Your task to perform on an android device: turn on javascript in the chrome app Image 0: 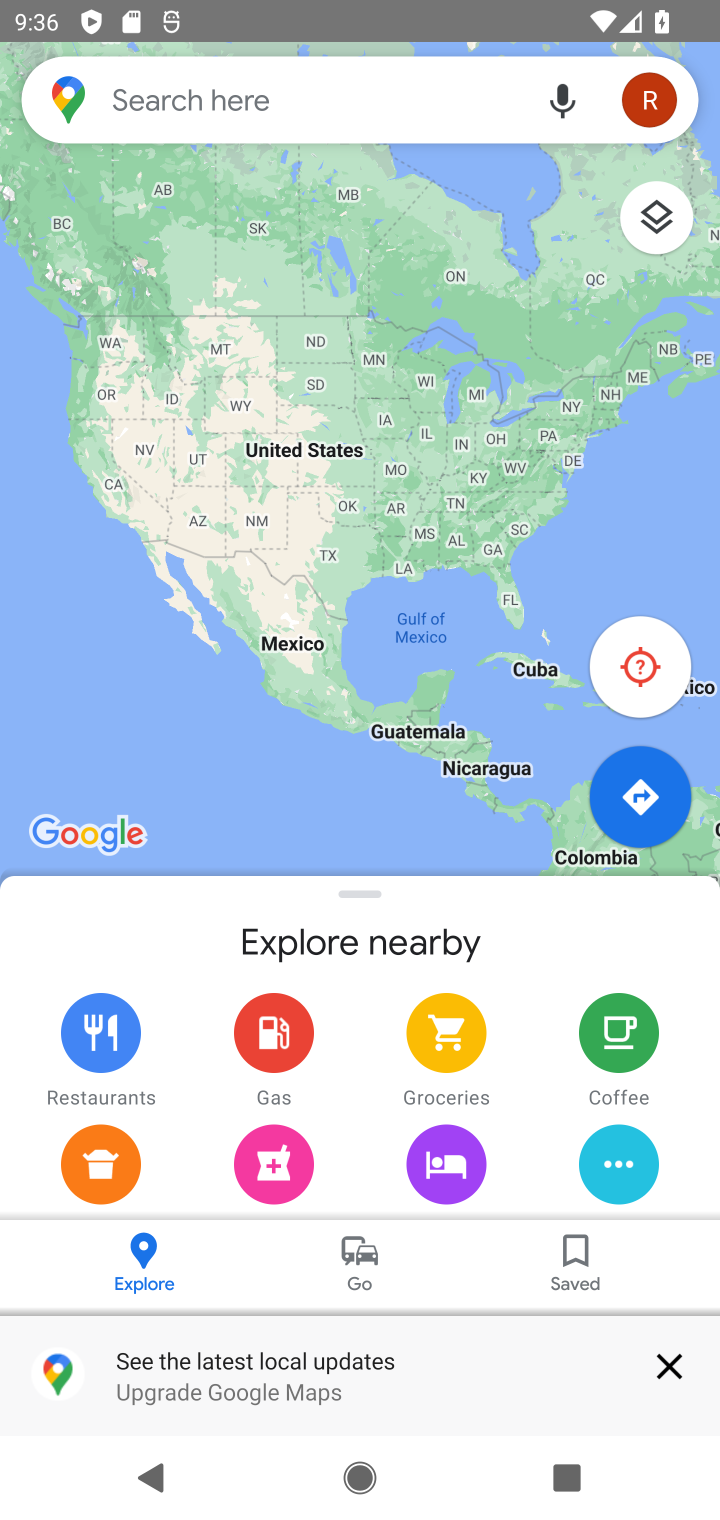
Step 0: press home button
Your task to perform on an android device: turn on javascript in the chrome app Image 1: 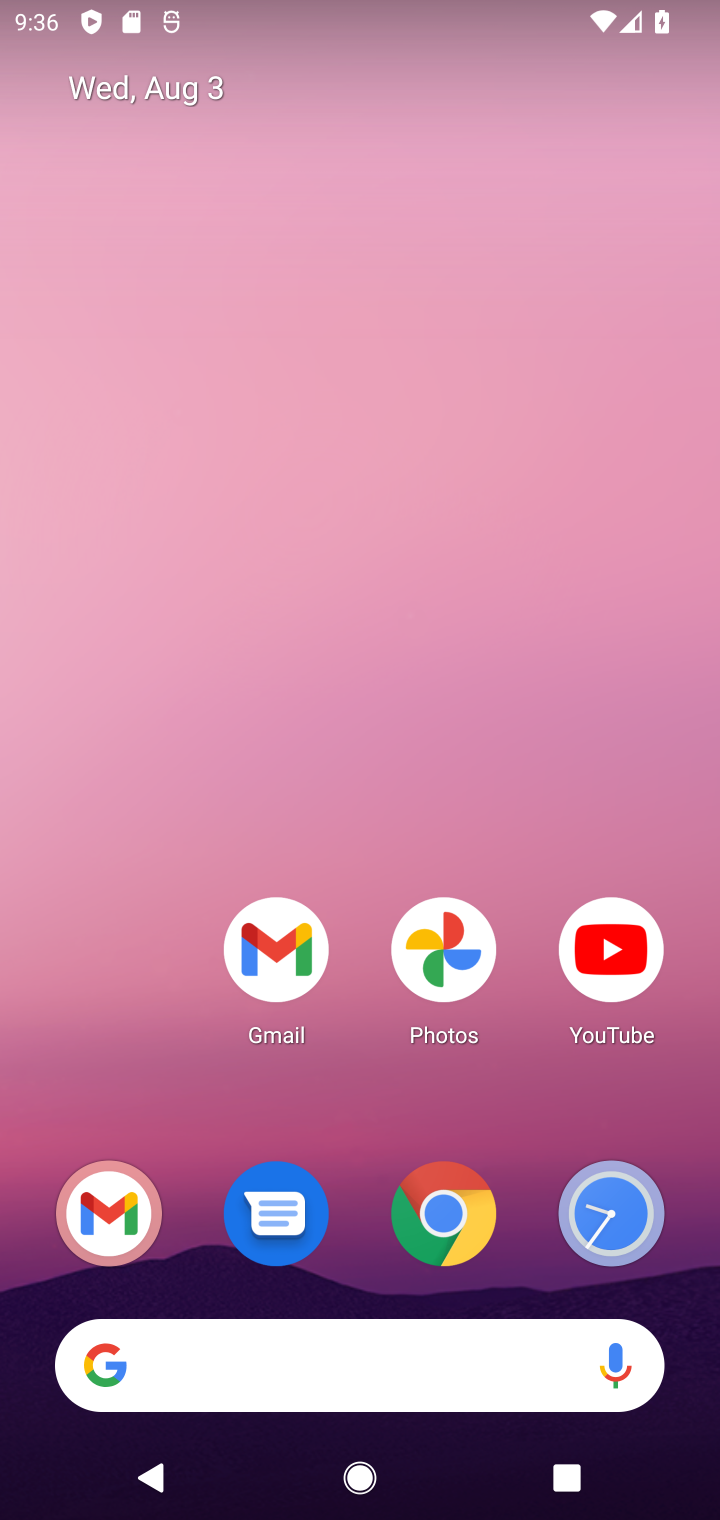
Step 1: click (439, 1206)
Your task to perform on an android device: turn on javascript in the chrome app Image 2: 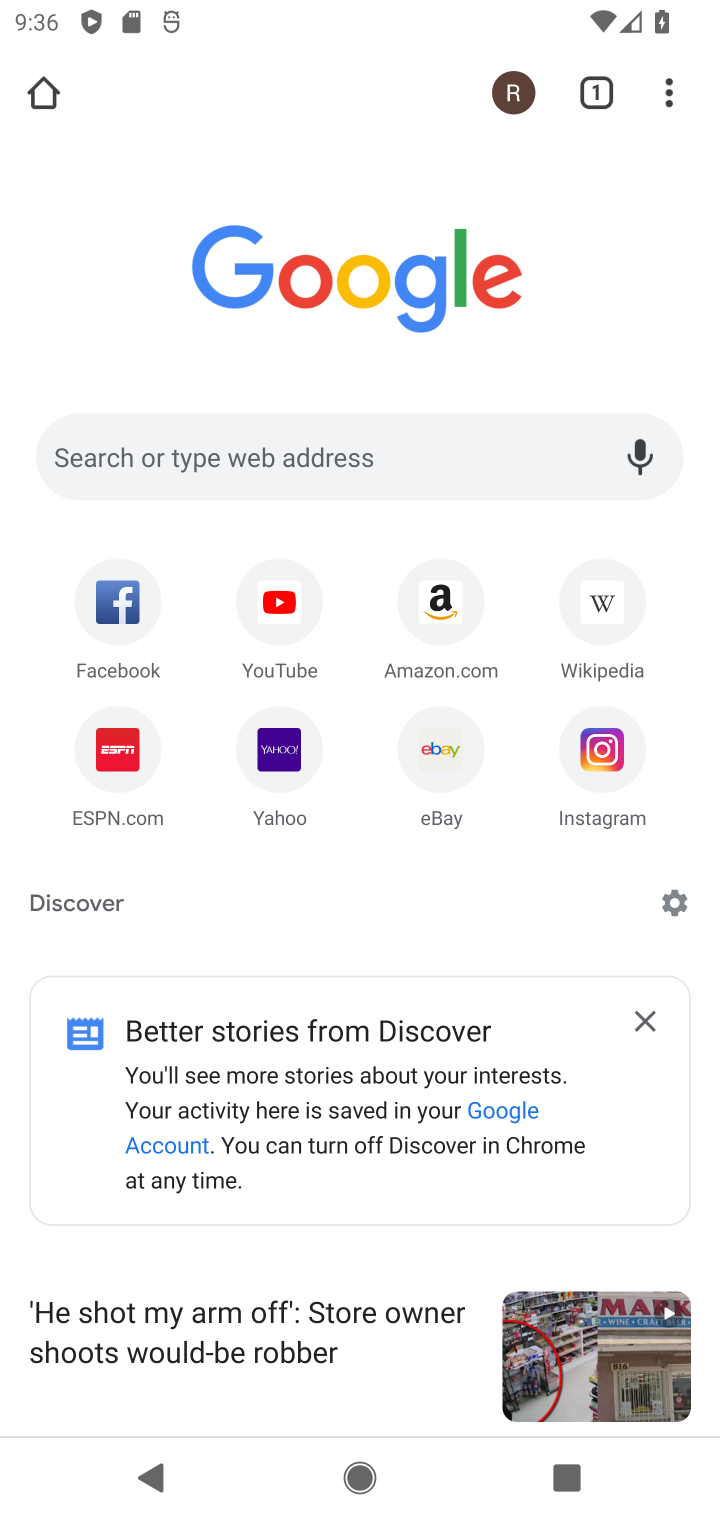
Step 2: click (674, 98)
Your task to perform on an android device: turn on javascript in the chrome app Image 3: 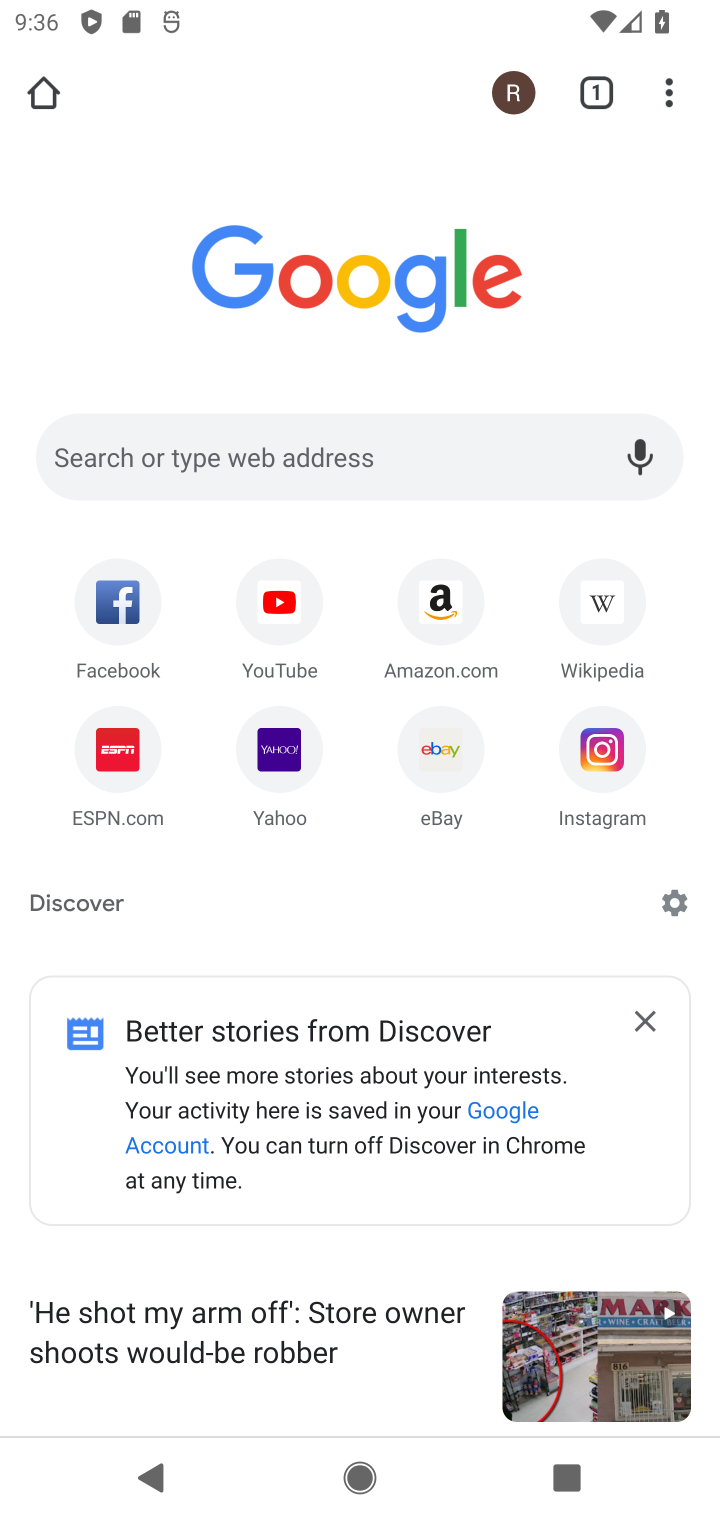
Step 3: click (664, 108)
Your task to perform on an android device: turn on javascript in the chrome app Image 4: 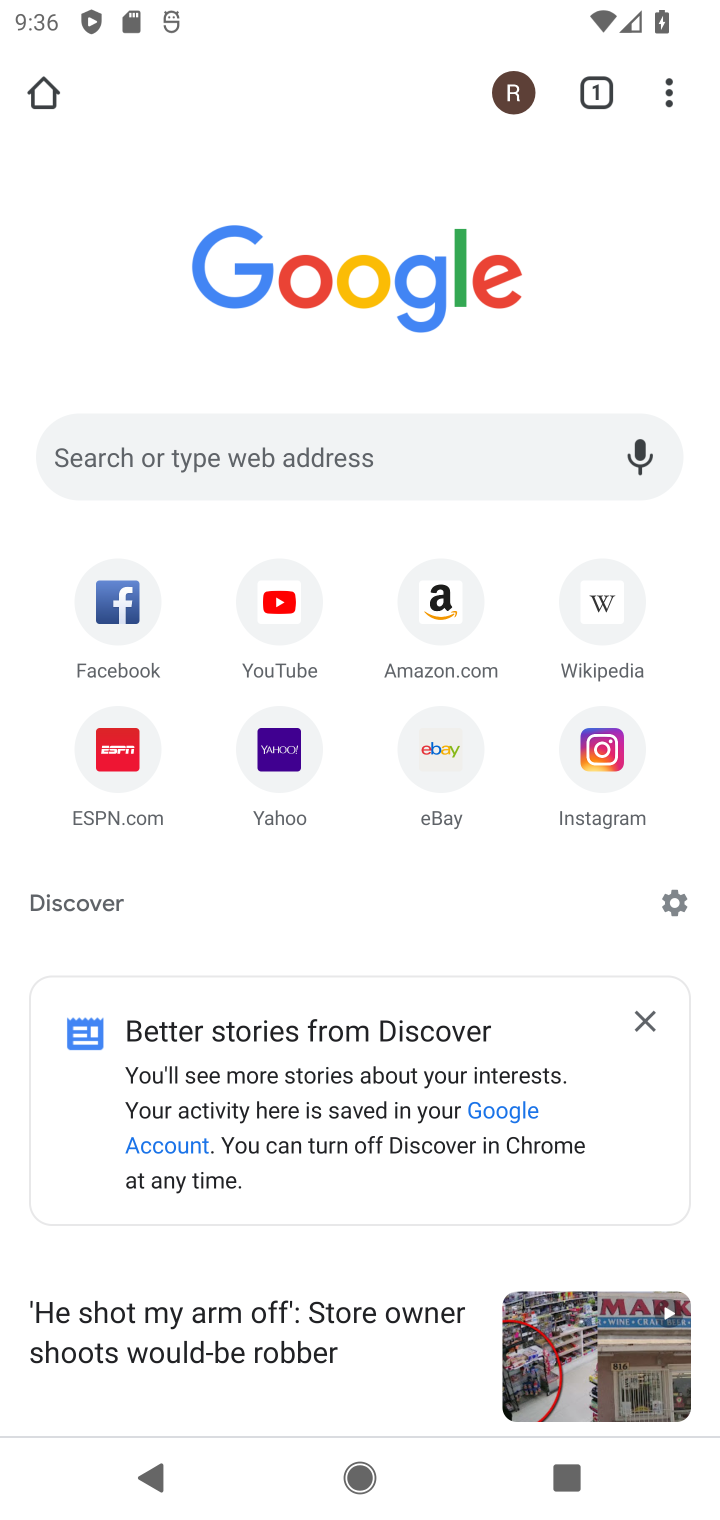
Step 4: click (666, 95)
Your task to perform on an android device: turn on javascript in the chrome app Image 5: 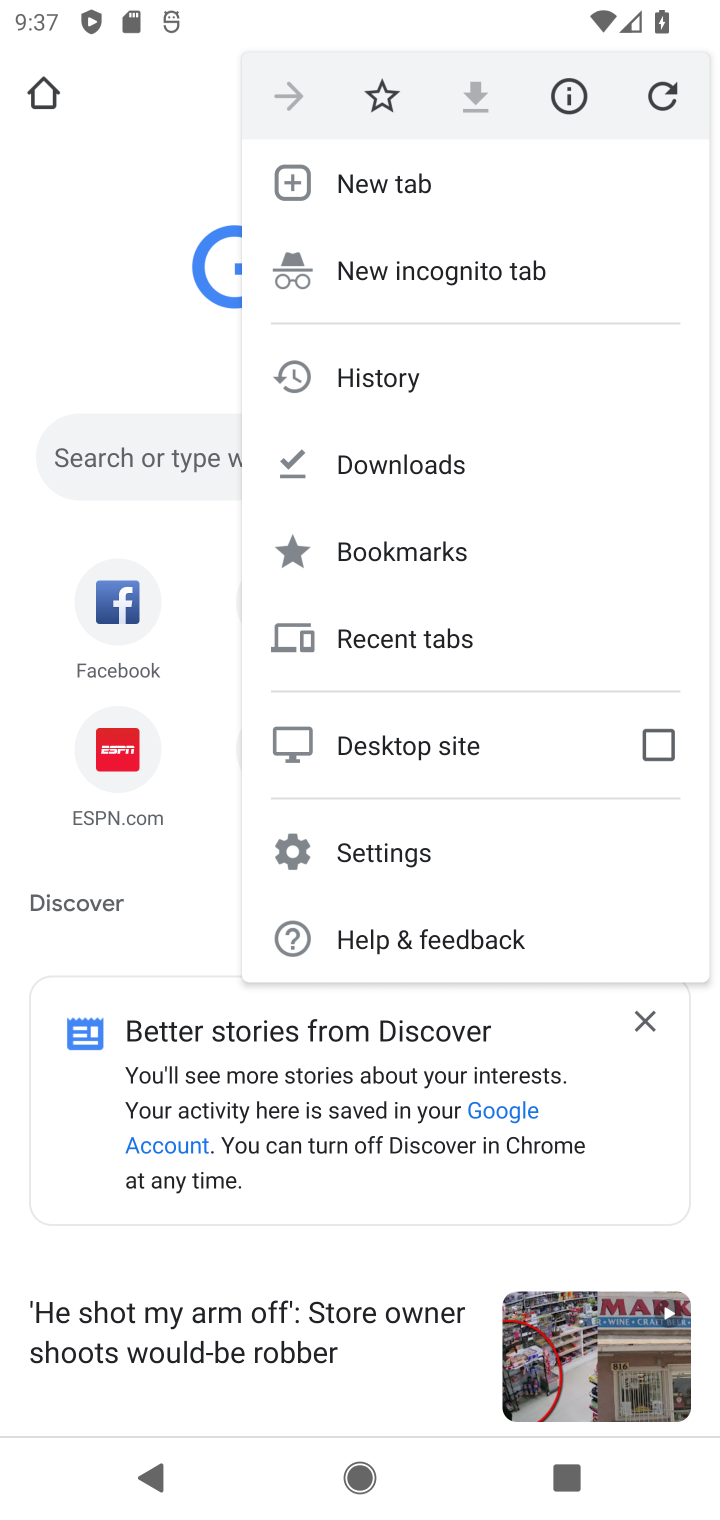
Step 5: click (492, 844)
Your task to perform on an android device: turn on javascript in the chrome app Image 6: 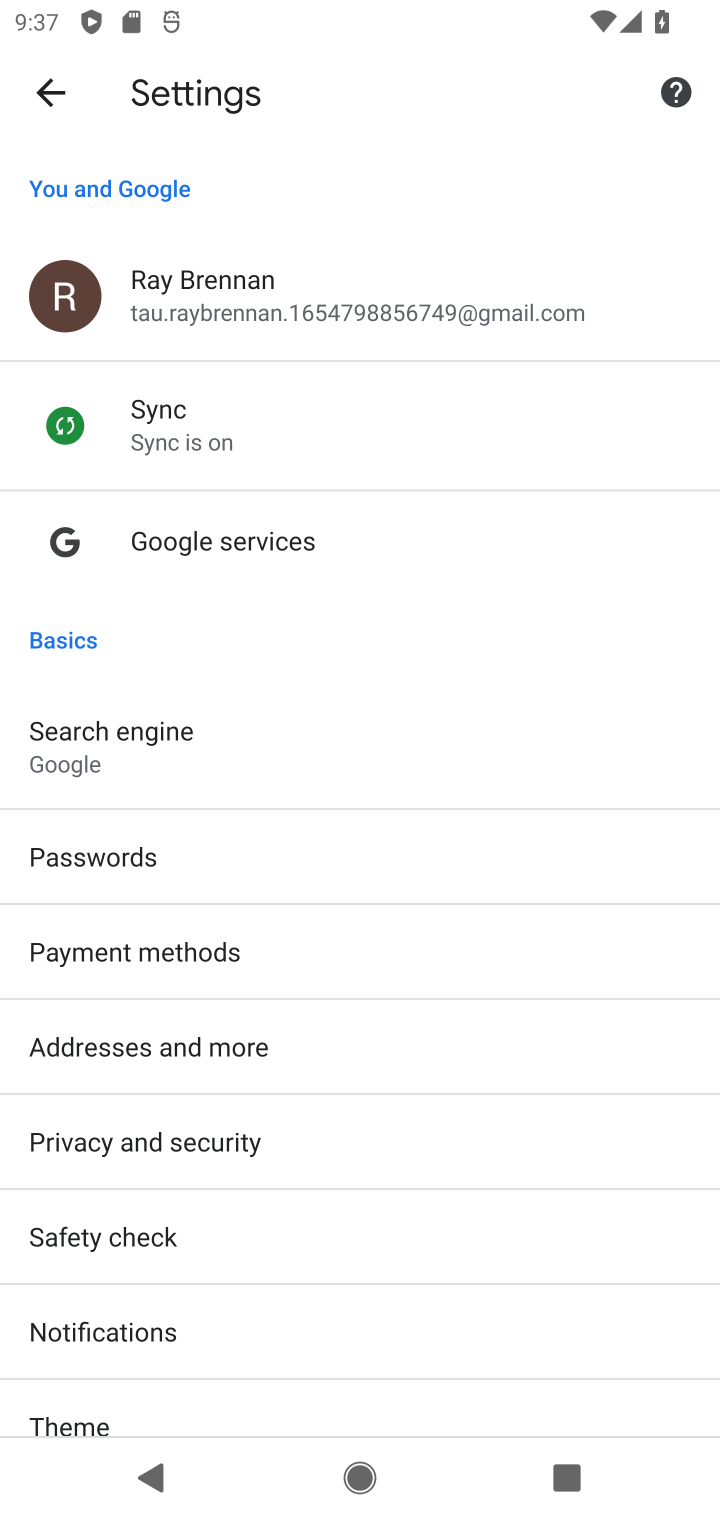
Step 6: drag from (336, 1341) to (261, 449)
Your task to perform on an android device: turn on javascript in the chrome app Image 7: 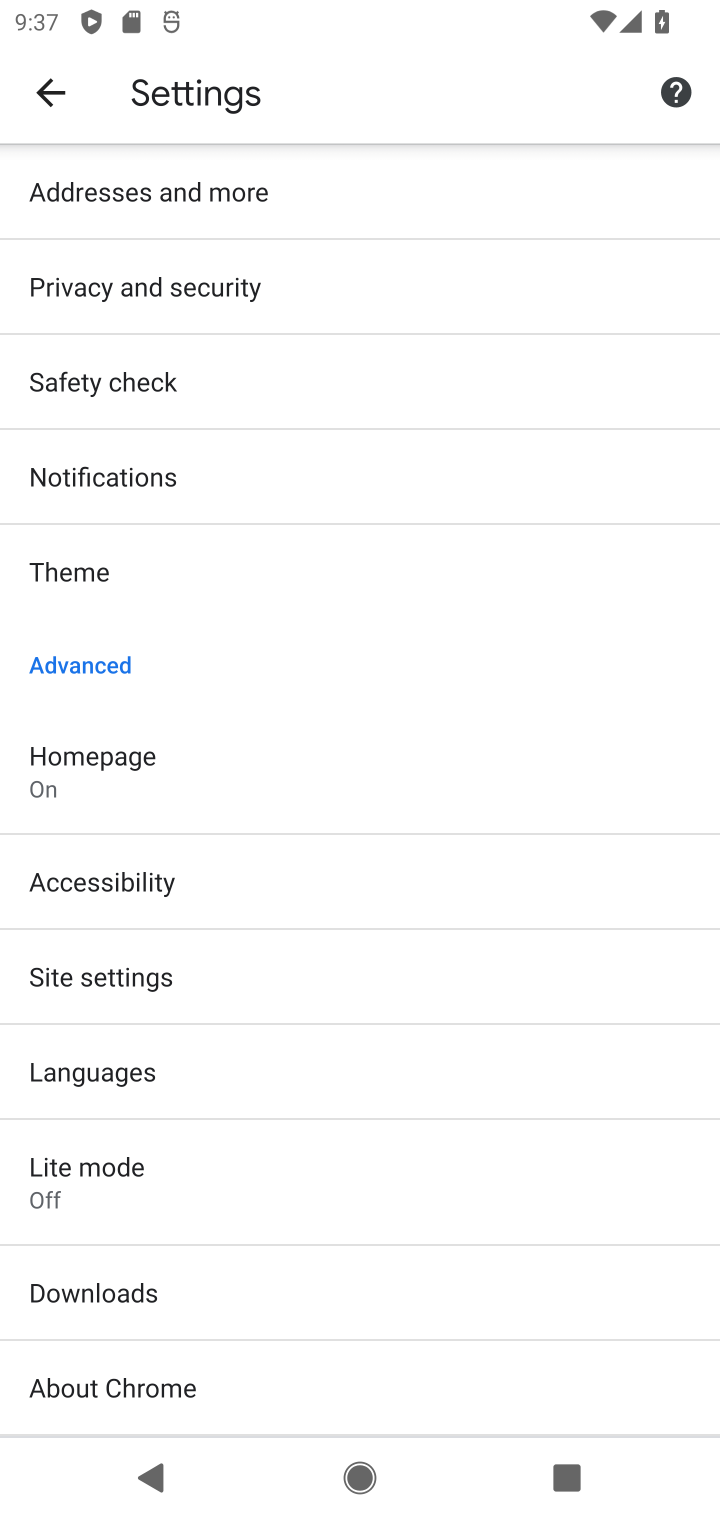
Step 7: click (121, 999)
Your task to perform on an android device: turn on javascript in the chrome app Image 8: 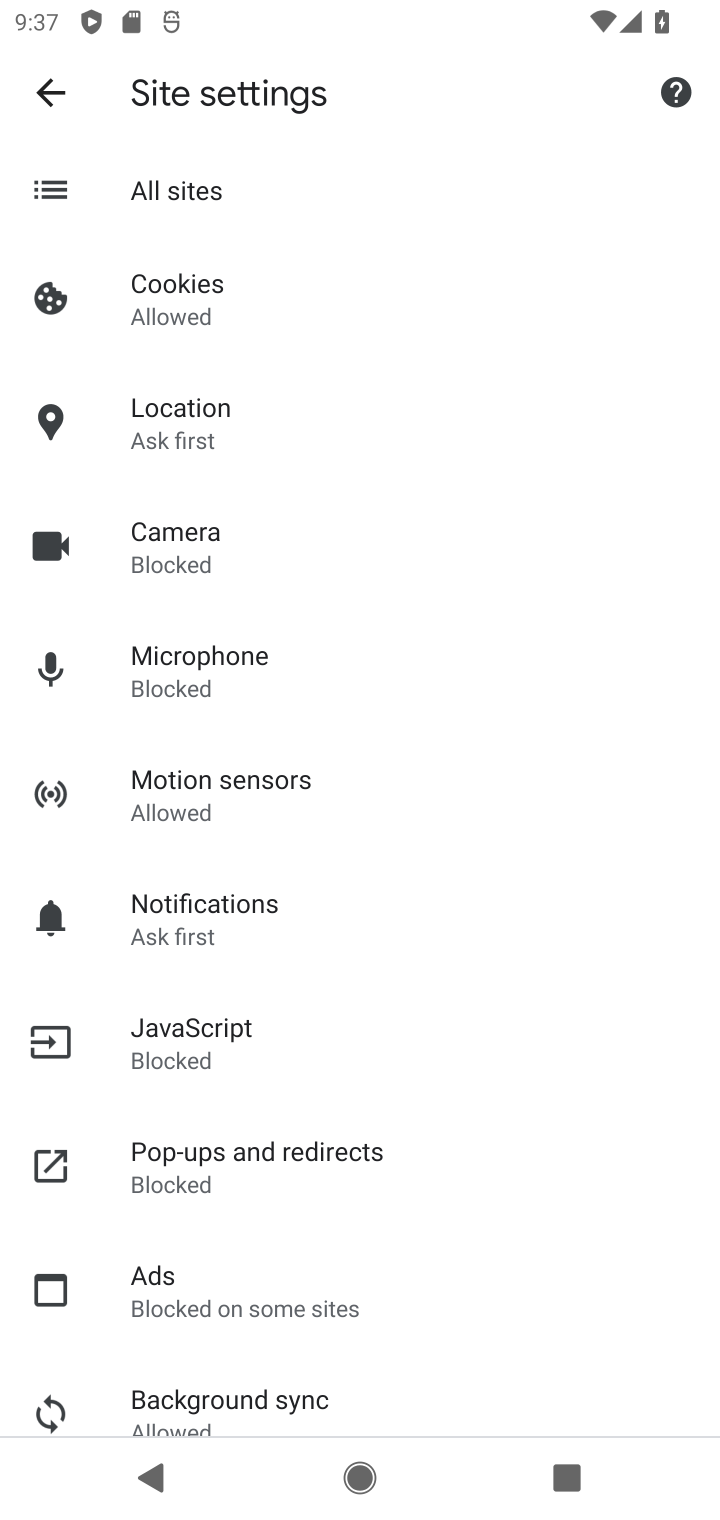
Step 8: click (227, 1042)
Your task to perform on an android device: turn on javascript in the chrome app Image 9: 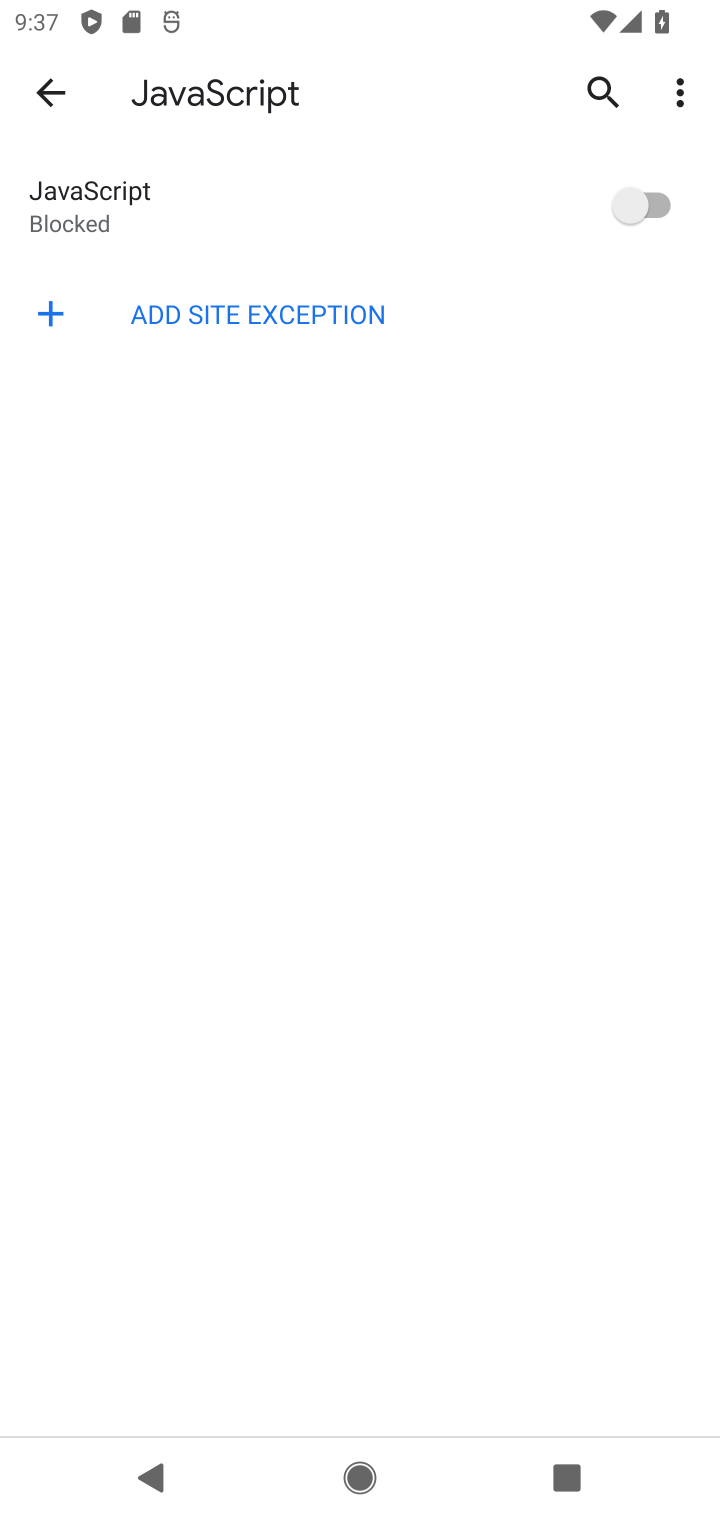
Step 9: click (625, 191)
Your task to perform on an android device: turn on javascript in the chrome app Image 10: 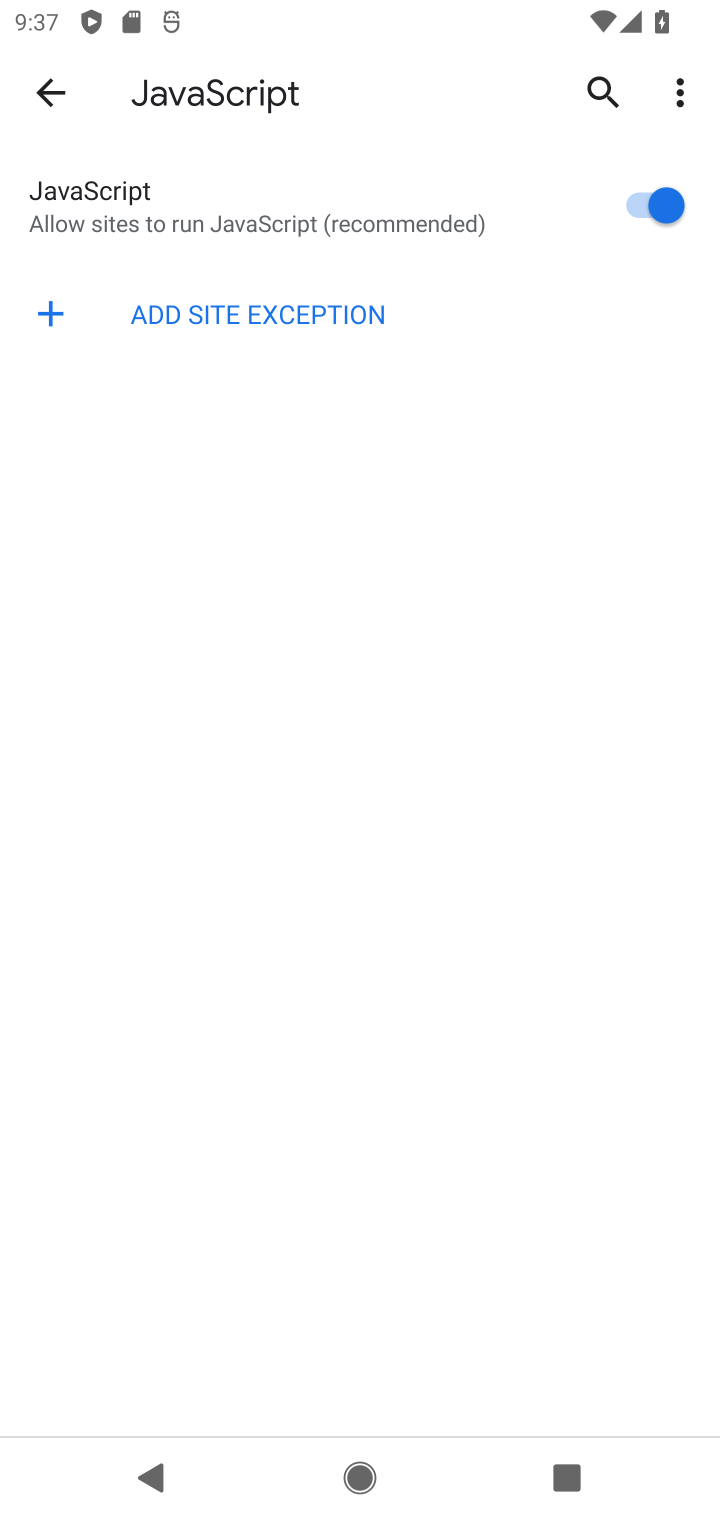
Step 10: task complete